Your task to perform on an android device: Open maps Image 0: 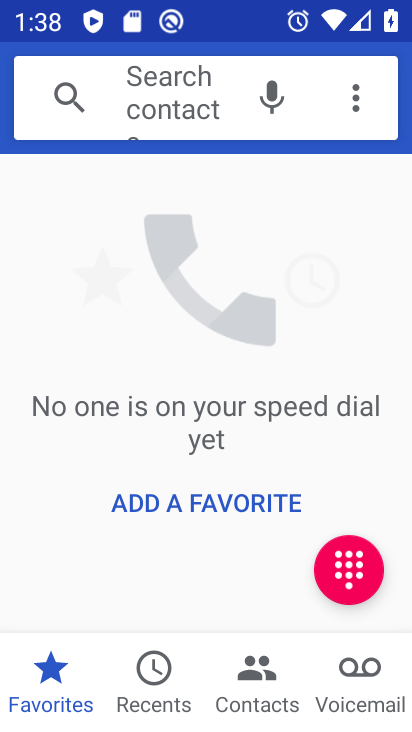
Step 0: press home button
Your task to perform on an android device: Open maps Image 1: 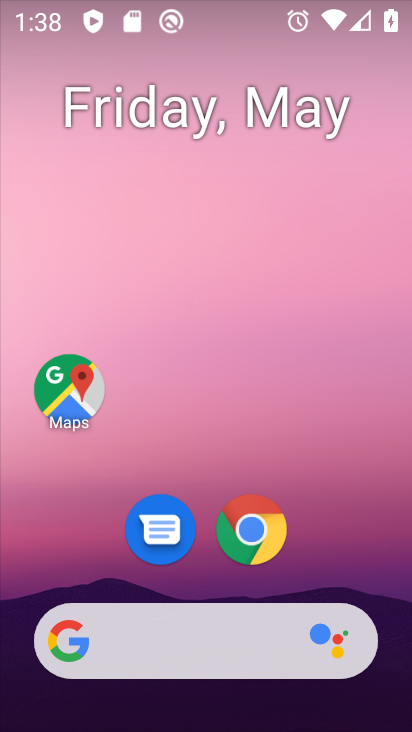
Step 1: click (40, 392)
Your task to perform on an android device: Open maps Image 2: 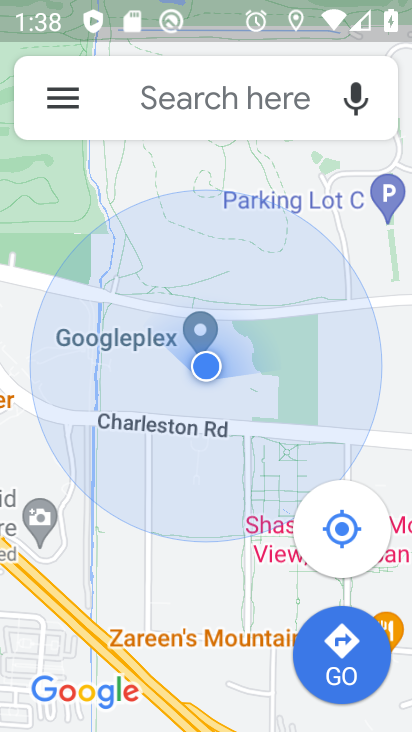
Step 2: task complete